Your task to perform on an android device: toggle notifications settings in the gmail app Image 0: 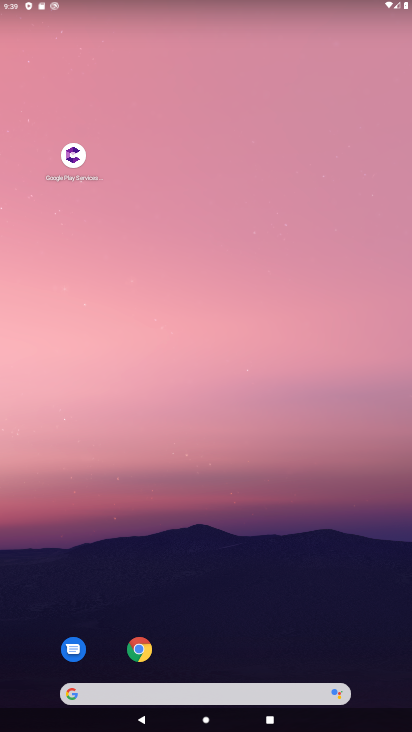
Step 0: drag from (273, 597) to (281, 177)
Your task to perform on an android device: toggle notifications settings in the gmail app Image 1: 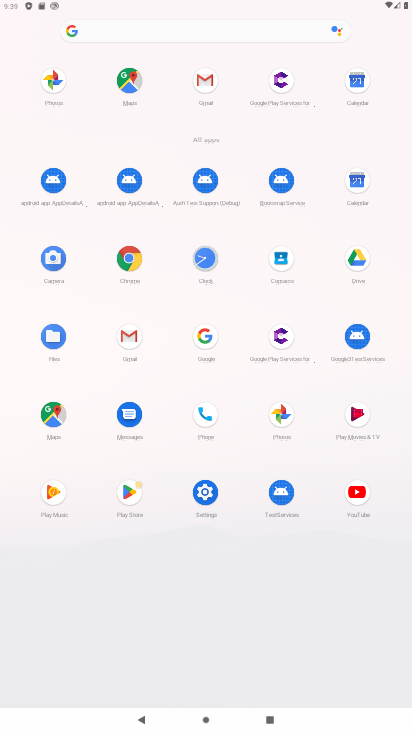
Step 1: click (127, 336)
Your task to perform on an android device: toggle notifications settings in the gmail app Image 2: 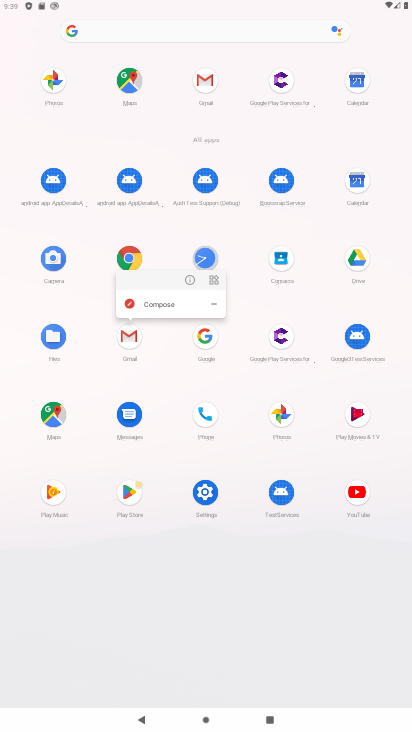
Step 2: click (191, 275)
Your task to perform on an android device: toggle notifications settings in the gmail app Image 3: 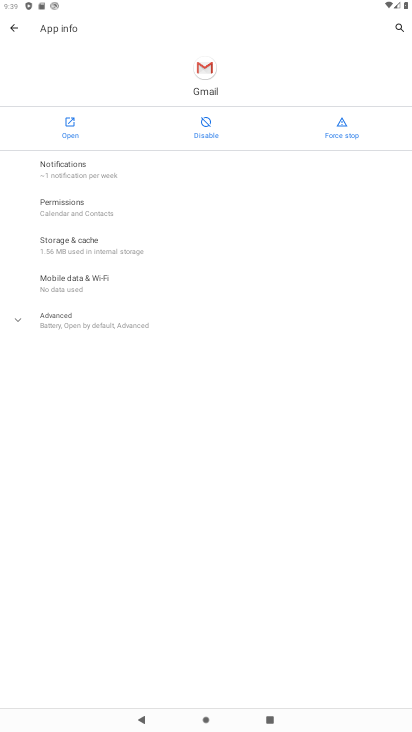
Step 3: click (152, 162)
Your task to perform on an android device: toggle notifications settings in the gmail app Image 4: 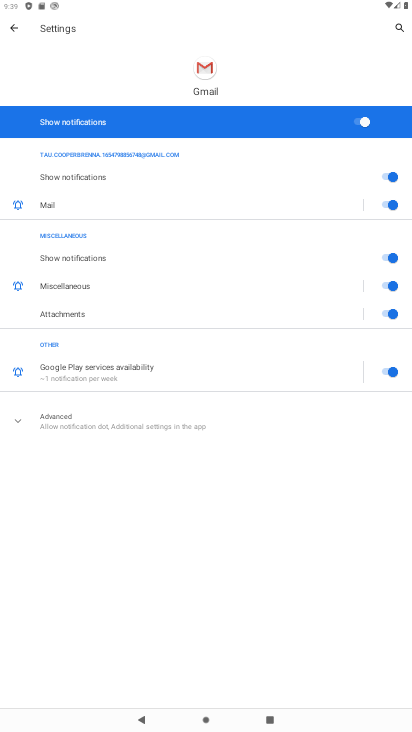
Step 4: click (366, 122)
Your task to perform on an android device: toggle notifications settings in the gmail app Image 5: 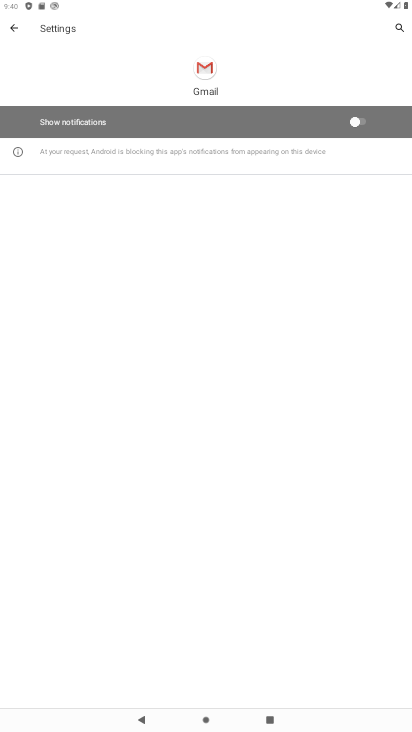
Step 5: task complete